Your task to perform on an android device: Open eBay Image 0: 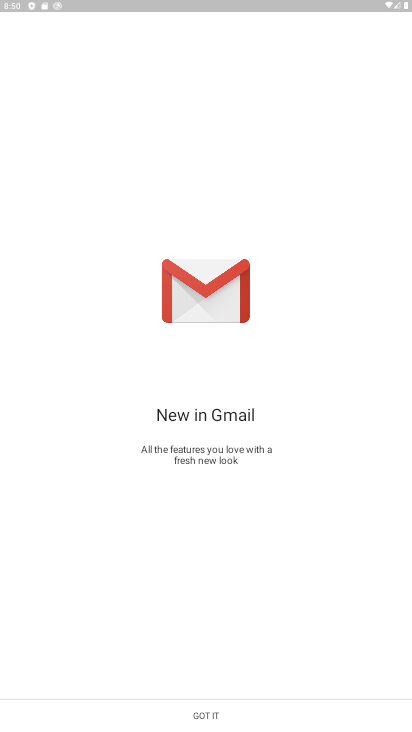
Step 0: press home button
Your task to perform on an android device: Open eBay Image 1: 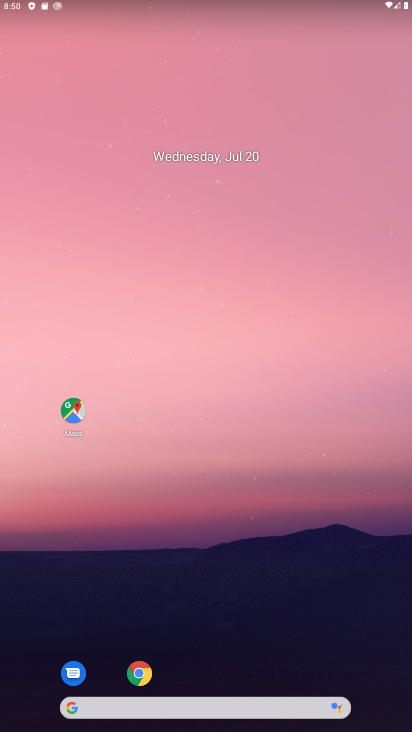
Step 1: click (134, 670)
Your task to perform on an android device: Open eBay Image 2: 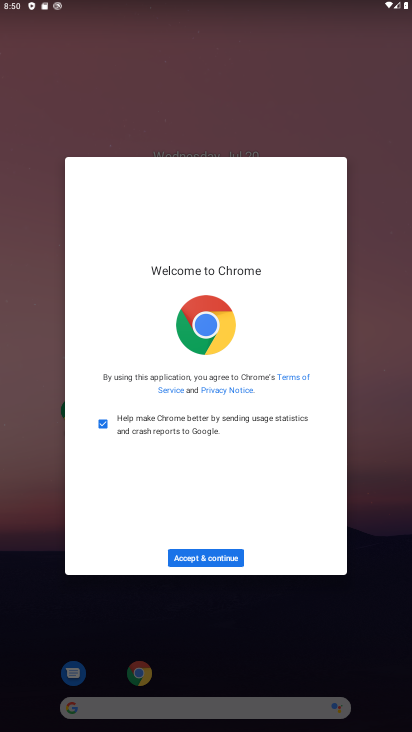
Step 2: click (233, 556)
Your task to perform on an android device: Open eBay Image 3: 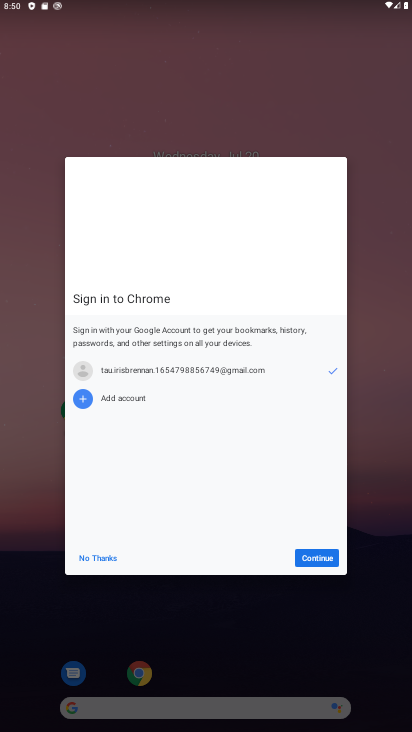
Step 3: click (320, 549)
Your task to perform on an android device: Open eBay Image 4: 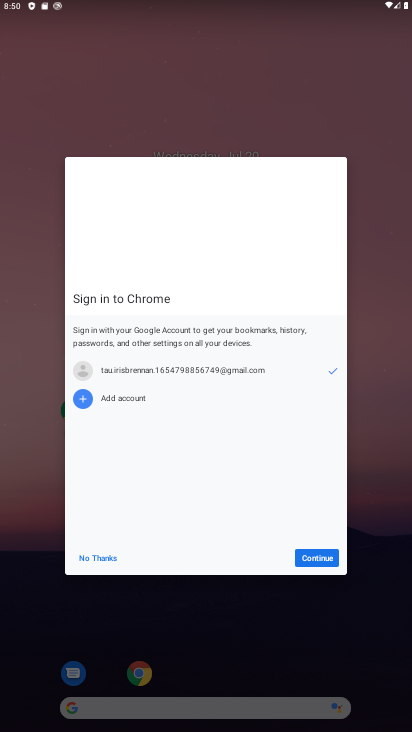
Step 4: click (312, 554)
Your task to perform on an android device: Open eBay Image 5: 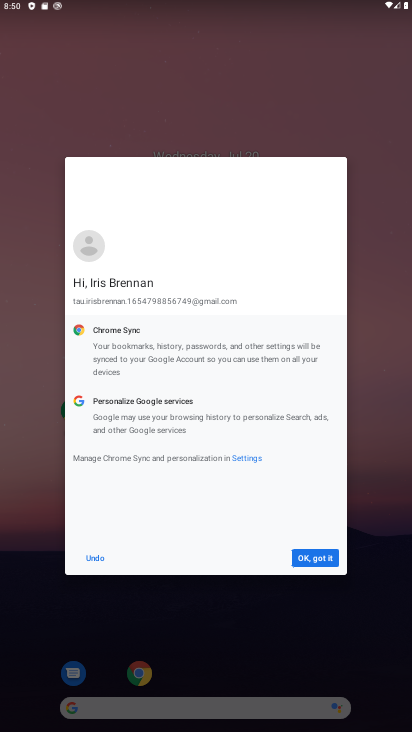
Step 5: click (312, 557)
Your task to perform on an android device: Open eBay Image 6: 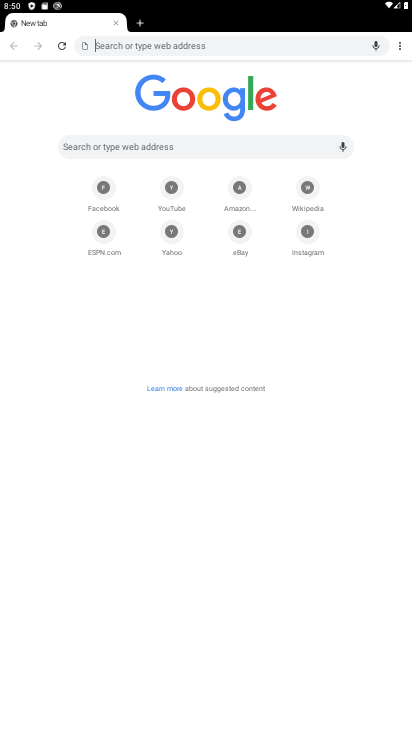
Step 6: click (170, 41)
Your task to perform on an android device: Open eBay Image 7: 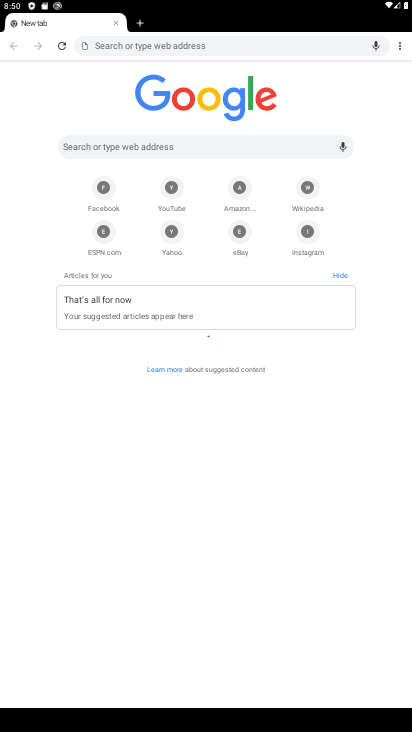
Step 7: type "eBay"
Your task to perform on an android device: Open eBay Image 8: 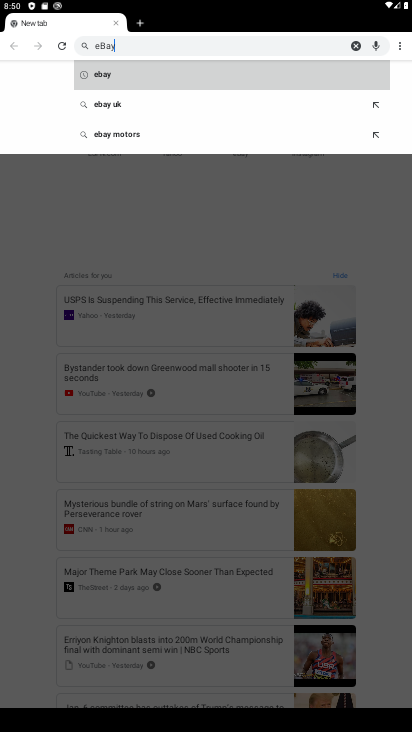
Step 8: click (113, 76)
Your task to perform on an android device: Open eBay Image 9: 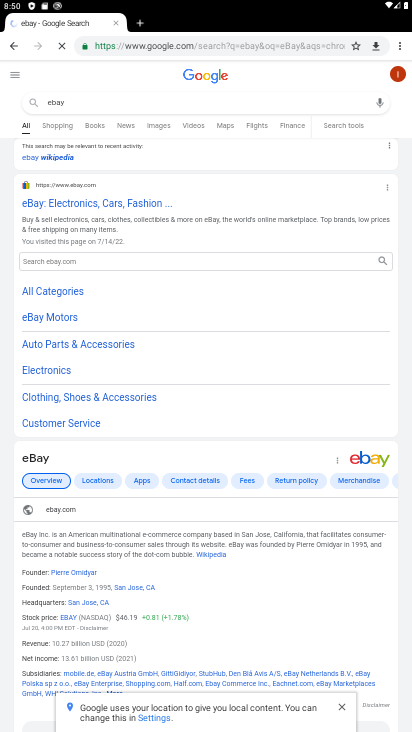
Step 9: task complete